Your task to perform on an android device: View the shopping cart on walmart. Search for bose soundlink on walmart, select the first entry, and add it to the cart. Image 0: 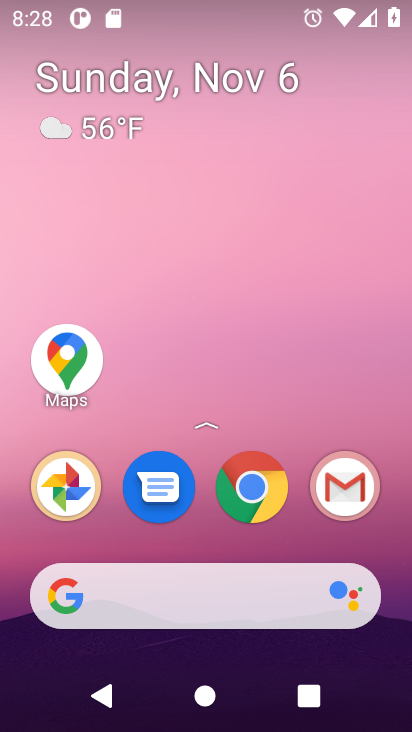
Step 0: click (271, 495)
Your task to perform on an android device: View the shopping cart on walmart. Search for bose soundlink on walmart, select the first entry, and add it to the cart. Image 1: 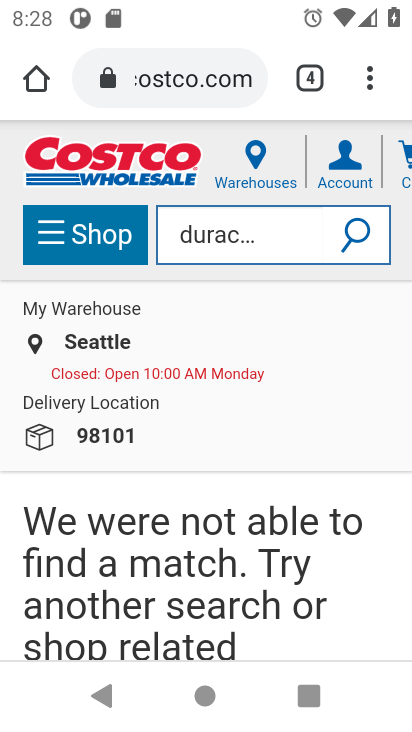
Step 1: click (214, 88)
Your task to perform on an android device: View the shopping cart on walmart. Search for bose soundlink on walmart, select the first entry, and add it to the cart. Image 2: 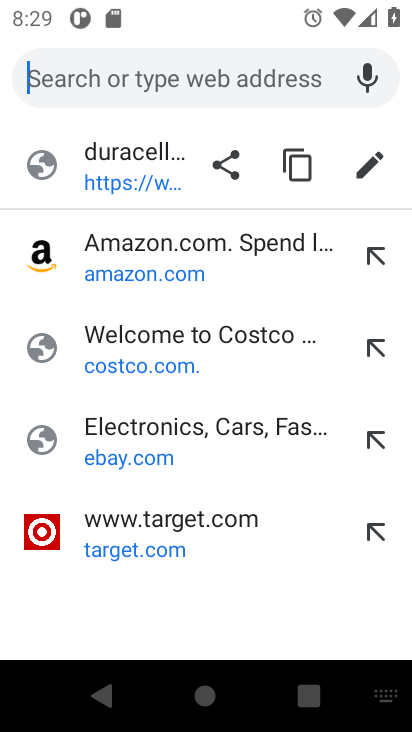
Step 2: type "walmart"
Your task to perform on an android device: View the shopping cart on walmart. Search for bose soundlink on walmart, select the first entry, and add it to the cart. Image 3: 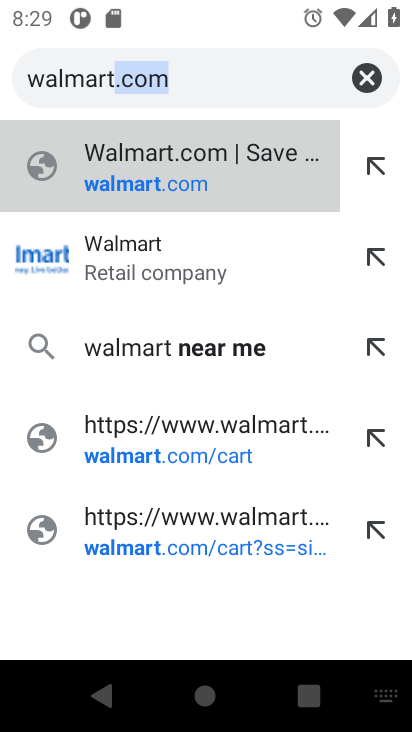
Step 3: click (89, 185)
Your task to perform on an android device: View the shopping cart on walmart. Search for bose soundlink on walmart, select the first entry, and add it to the cart. Image 4: 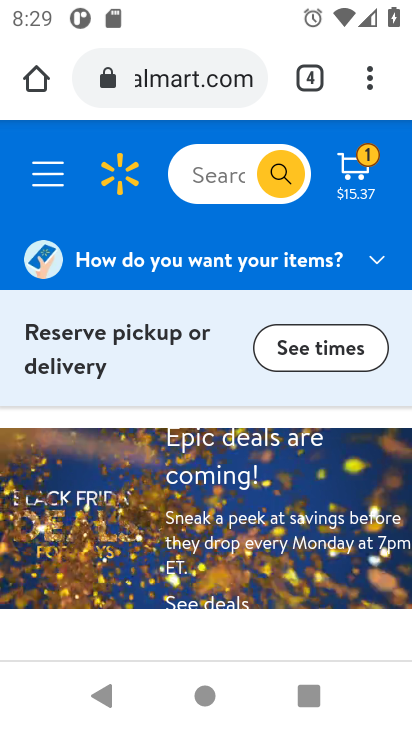
Step 4: click (346, 171)
Your task to perform on an android device: View the shopping cart on walmart. Search for bose soundlink on walmart, select the first entry, and add it to the cart. Image 5: 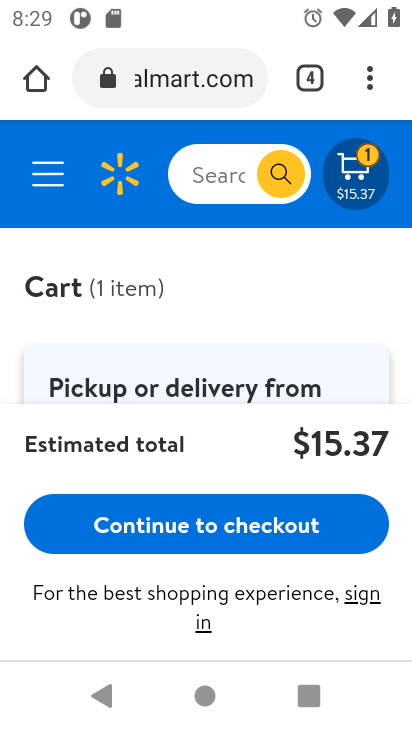
Step 5: click (205, 181)
Your task to perform on an android device: View the shopping cart on walmart. Search for bose soundlink on walmart, select the first entry, and add it to the cart. Image 6: 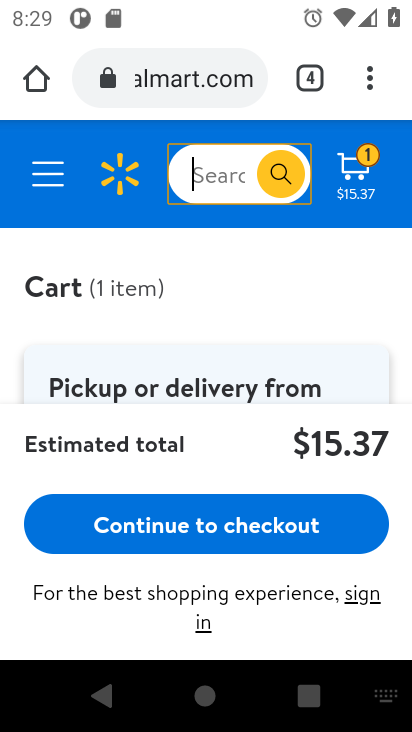
Step 6: type "bose soundlink"
Your task to perform on an android device: View the shopping cart on walmart. Search for bose soundlink on walmart, select the first entry, and add it to the cart. Image 7: 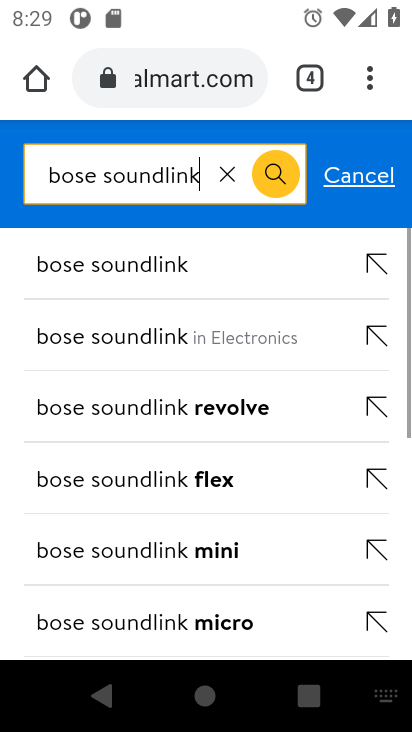
Step 7: click (281, 169)
Your task to perform on an android device: View the shopping cart on walmart. Search for bose soundlink on walmart, select the first entry, and add it to the cart. Image 8: 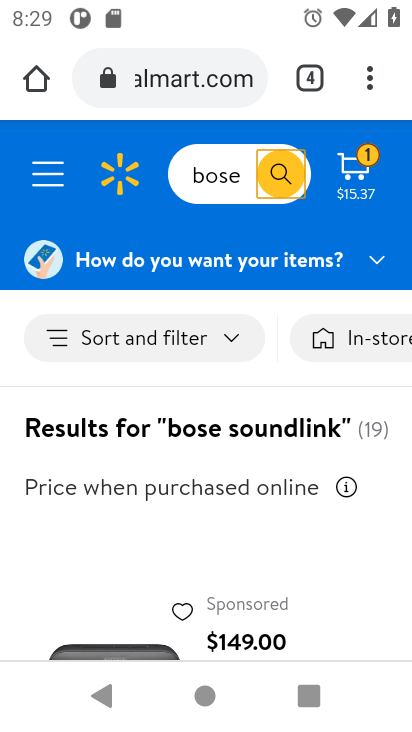
Step 8: drag from (129, 552) to (137, 224)
Your task to perform on an android device: View the shopping cart on walmart. Search for bose soundlink on walmart, select the first entry, and add it to the cart. Image 9: 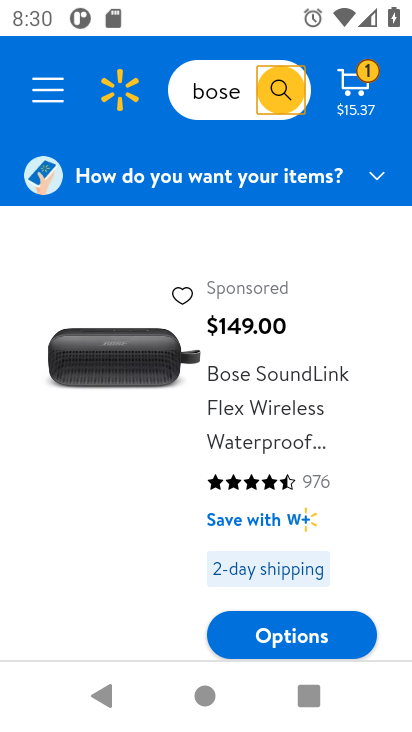
Step 9: drag from (198, 368) to (230, 167)
Your task to perform on an android device: View the shopping cart on walmart. Search for bose soundlink on walmart, select the first entry, and add it to the cart. Image 10: 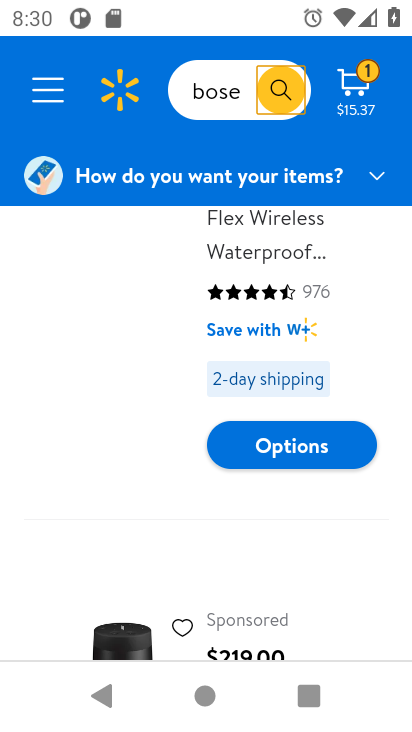
Step 10: drag from (165, 655) to (251, 276)
Your task to perform on an android device: View the shopping cart on walmart. Search for bose soundlink on walmart, select the first entry, and add it to the cart. Image 11: 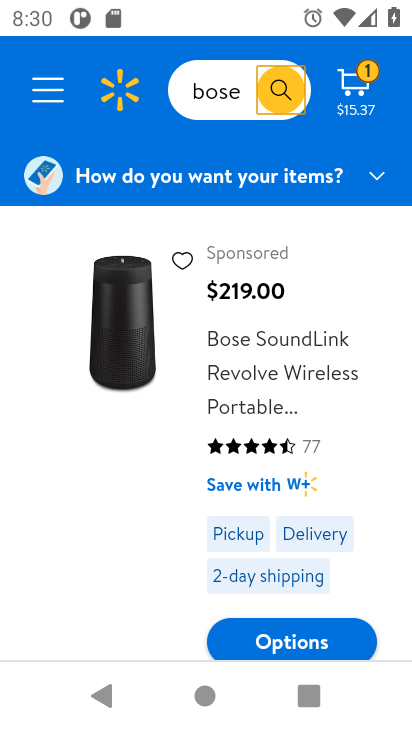
Step 11: drag from (120, 601) to (196, 343)
Your task to perform on an android device: View the shopping cart on walmart. Search for bose soundlink on walmart, select the first entry, and add it to the cart. Image 12: 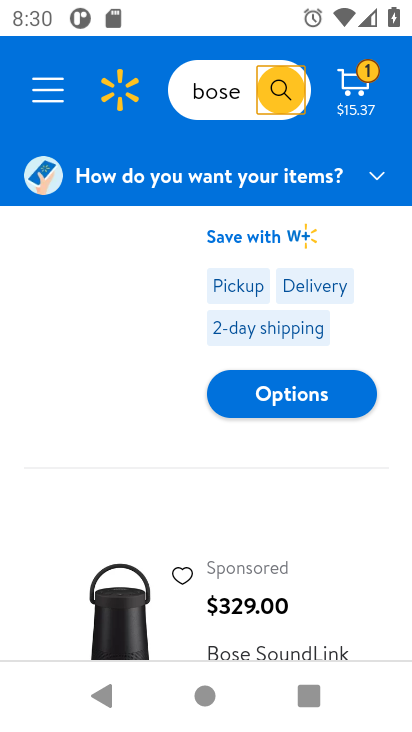
Step 12: drag from (179, 648) to (233, 216)
Your task to perform on an android device: View the shopping cart on walmart. Search for bose soundlink on walmart, select the first entry, and add it to the cart. Image 13: 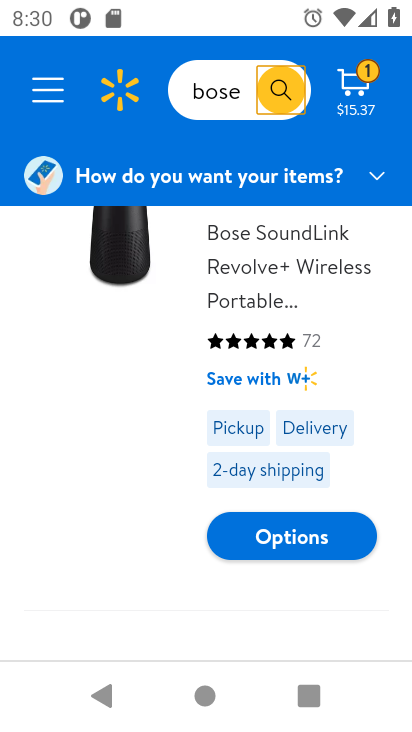
Step 13: drag from (163, 607) to (271, 258)
Your task to perform on an android device: View the shopping cart on walmart. Search for bose soundlink on walmart, select the first entry, and add it to the cart. Image 14: 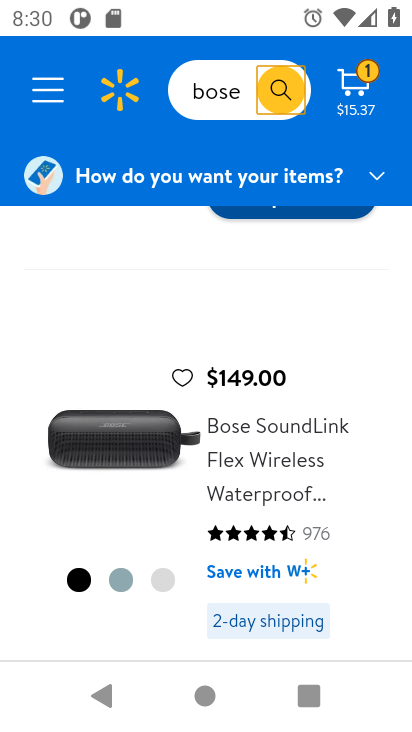
Step 14: drag from (178, 615) to (223, 317)
Your task to perform on an android device: View the shopping cart on walmart. Search for bose soundlink on walmart, select the first entry, and add it to the cart. Image 15: 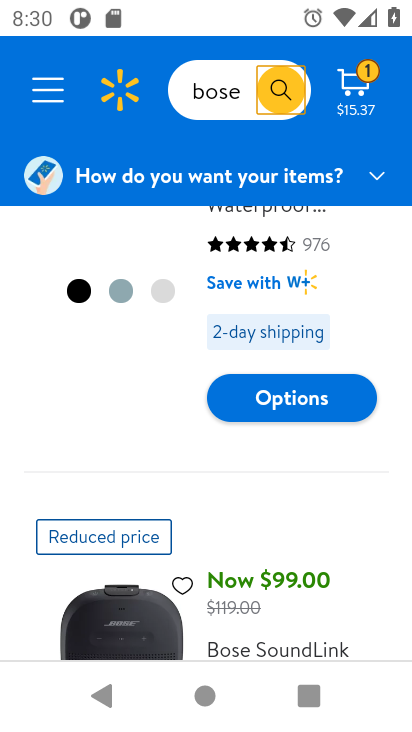
Step 15: drag from (157, 254) to (193, 599)
Your task to perform on an android device: View the shopping cart on walmart. Search for bose soundlink on walmart, select the first entry, and add it to the cart. Image 16: 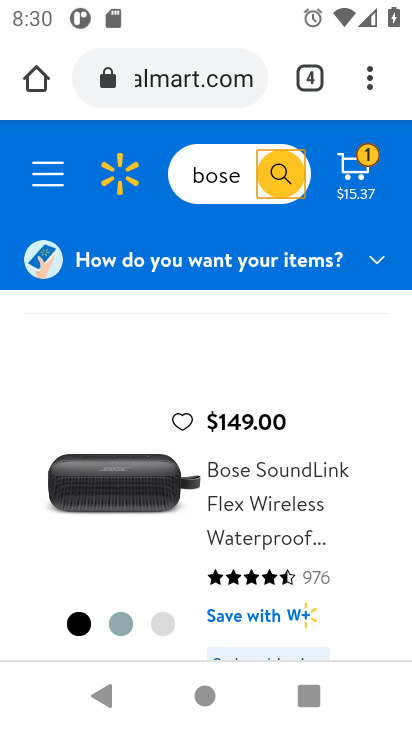
Step 16: drag from (192, 321) to (215, 662)
Your task to perform on an android device: View the shopping cart on walmart. Search for bose soundlink on walmart, select the first entry, and add it to the cart. Image 17: 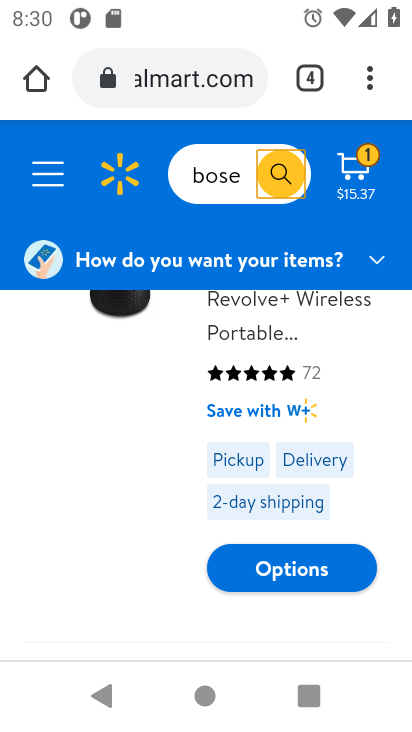
Step 17: drag from (183, 317) to (201, 641)
Your task to perform on an android device: View the shopping cart on walmart. Search for bose soundlink on walmart, select the first entry, and add it to the cart. Image 18: 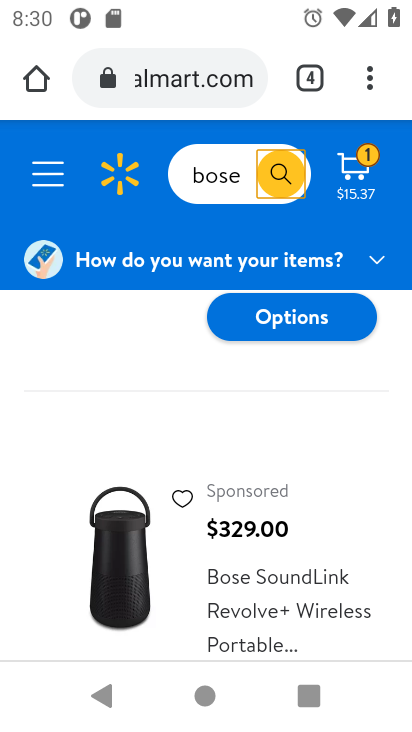
Step 18: click (147, 385)
Your task to perform on an android device: View the shopping cart on walmart. Search for bose soundlink on walmart, select the first entry, and add it to the cart. Image 19: 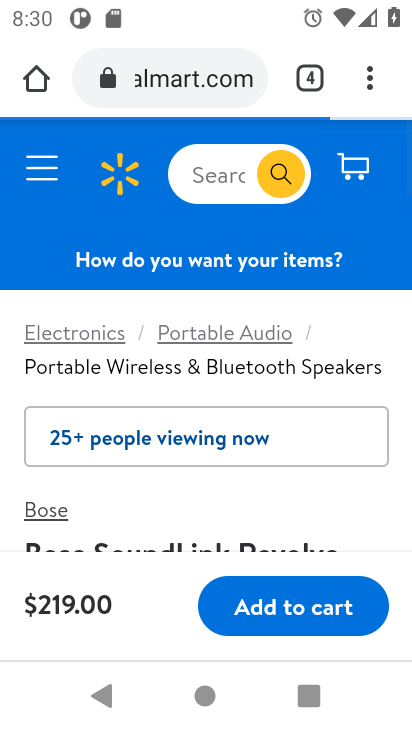
Step 19: drag from (170, 329) to (184, 643)
Your task to perform on an android device: View the shopping cart on walmart. Search for bose soundlink on walmart, select the first entry, and add it to the cart. Image 20: 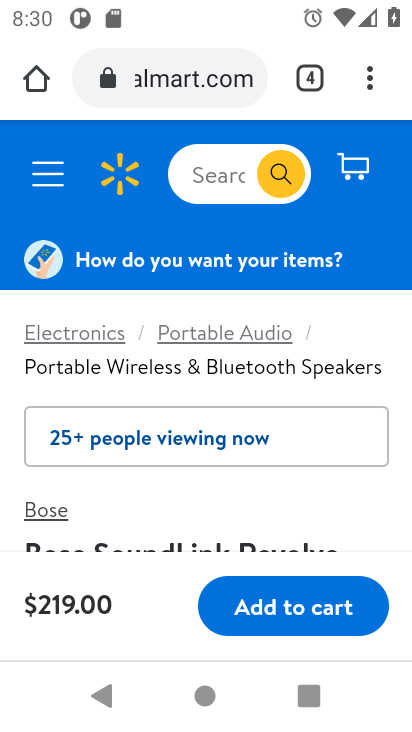
Step 20: click (322, 586)
Your task to perform on an android device: View the shopping cart on walmart. Search for bose soundlink on walmart, select the first entry, and add it to the cart. Image 21: 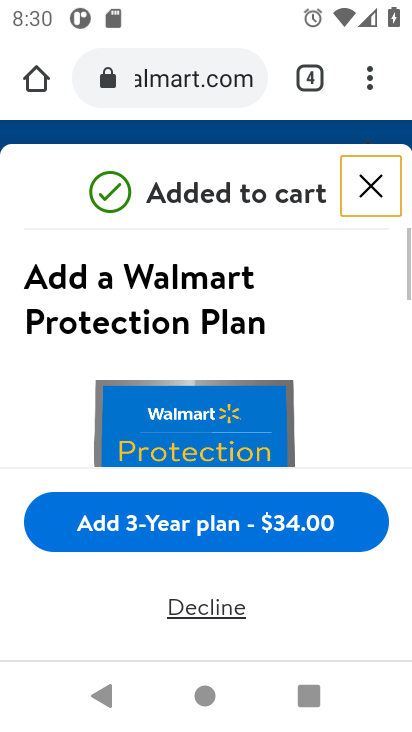
Step 21: task complete